Your task to perform on an android device: Open maps Image 0: 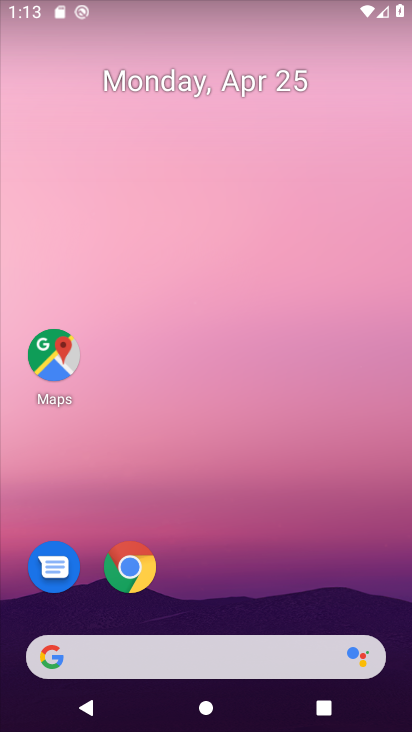
Step 0: click (41, 348)
Your task to perform on an android device: Open maps Image 1: 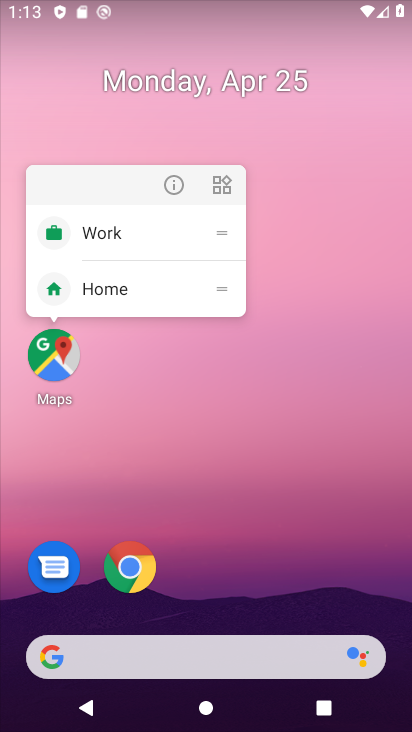
Step 1: click (52, 364)
Your task to perform on an android device: Open maps Image 2: 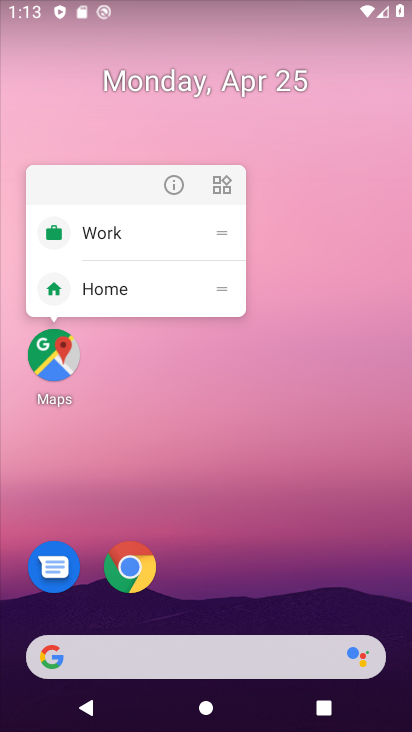
Step 2: click (52, 364)
Your task to perform on an android device: Open maps Image 3: 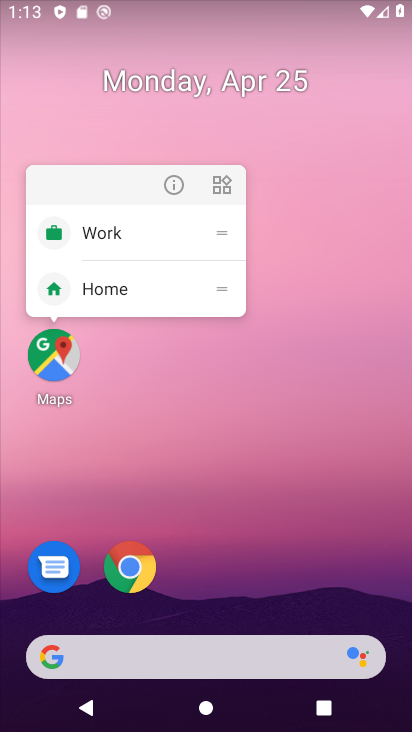
Step 3: click (47, 363)
Your task to perform on an android device: Open maps Image 4: 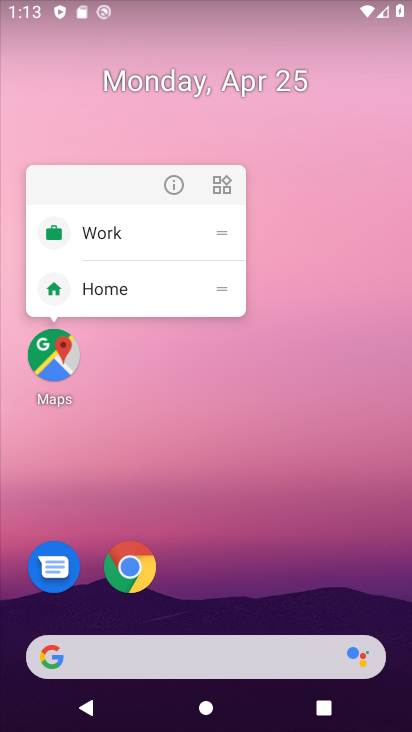
Step 4: click (55, 386)
Your task to perform on an android device: Open maps Image 5: 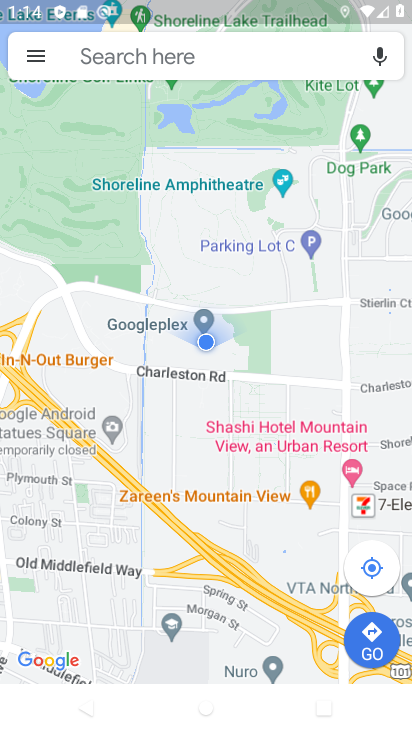
Step 5: task complete